Your task to perform on an android device: Check the weather Image 0: 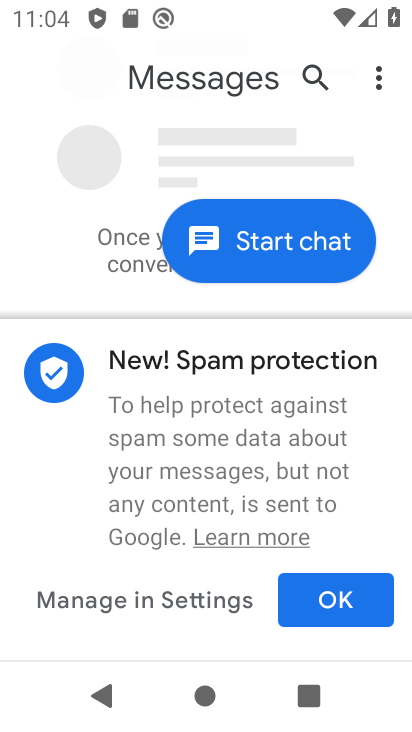
Step 0: press home button
Your task to perform on an android device: Check the weather Image 1: 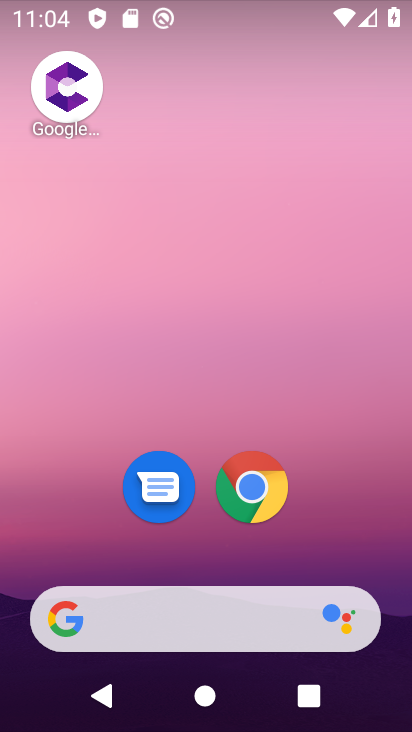
Step 1: click (125, 613)
Your task to perform on an android device: Check the weather Image 2: 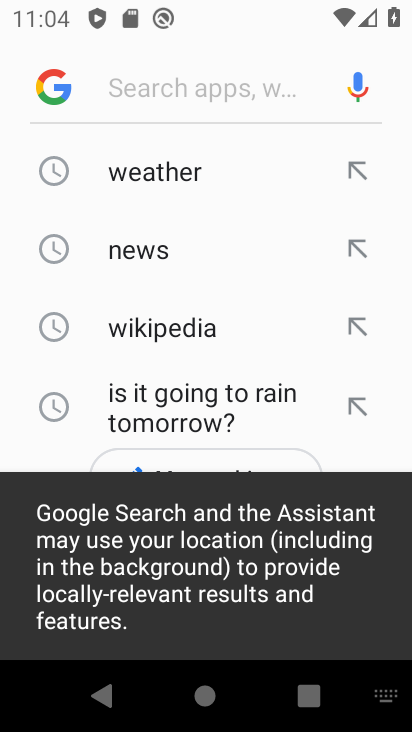
Step 2: click (155, 186)
Your task to perform on an android device: Check the weather Image 3: 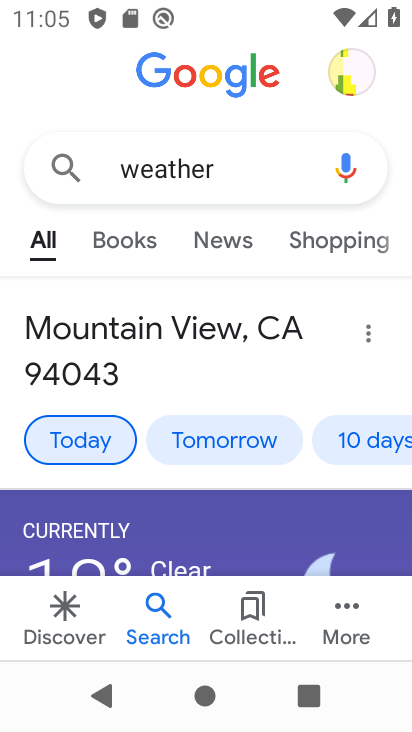
Step 3: task complete